Your task to perform on an android device: open device folders in google photos Image 0: 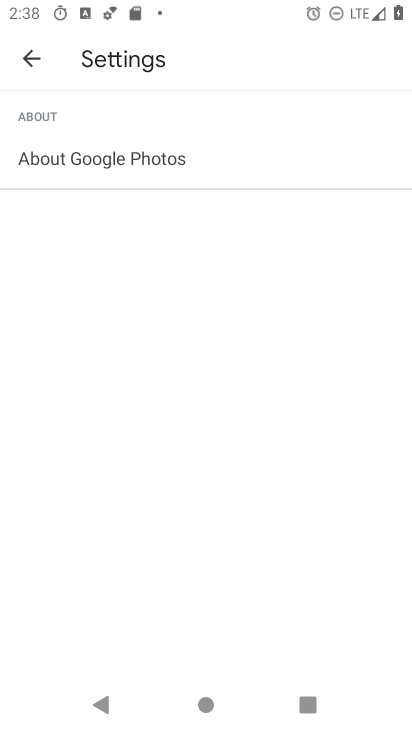
Step 0: press home button
Your task to perform on an android device: open device folders in google photos Image 1: 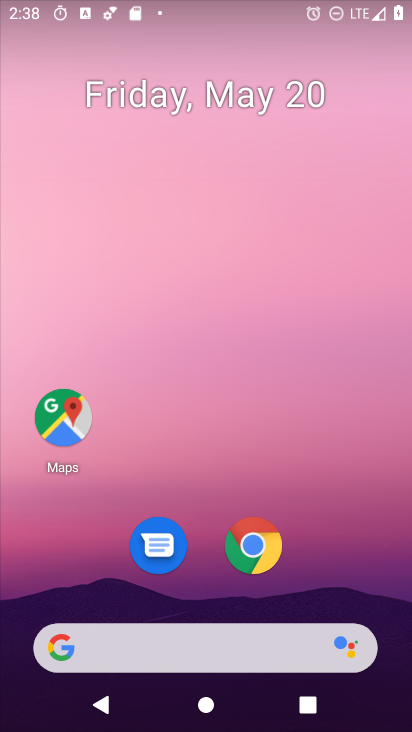
Step 1: drag from (218, 575) to (288, 25)
Your task to perform on an android device: open device folders in google photos Image 2: 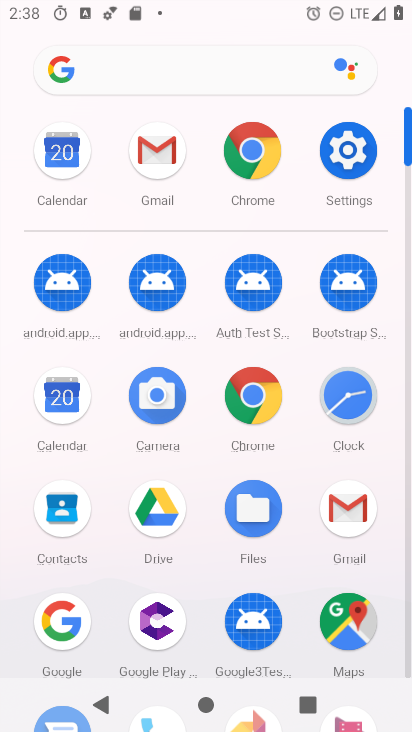
Step 2: drag from (294, 560) to (280, 145)
Your task to perform on an android device: open device folders in google photos Image 3: 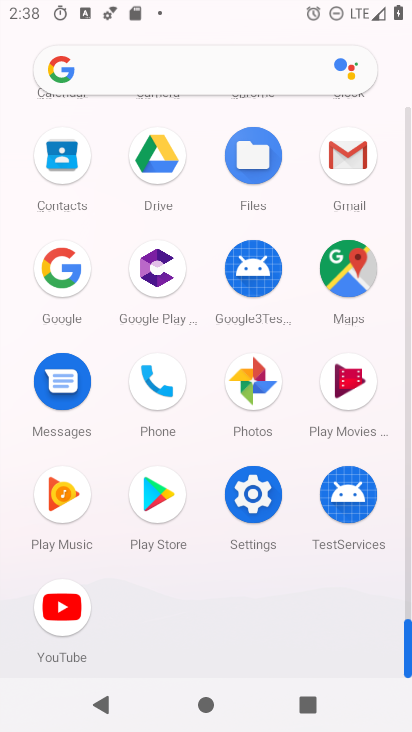
Step 3: click (157, 509)
Your task to perform on an android device: open device folders in google photos Image 4: 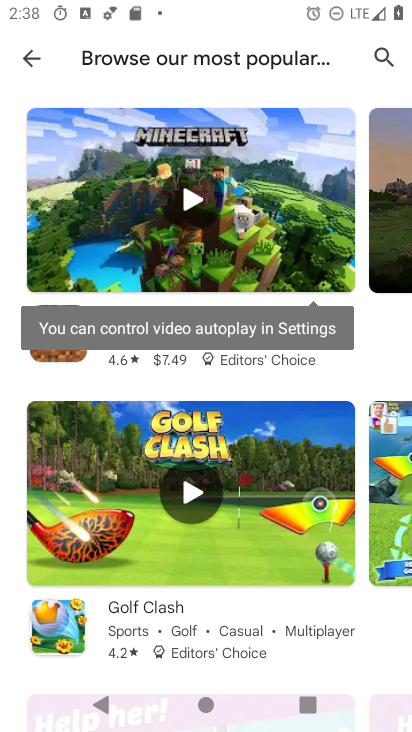
Step 4: press home button
Your task to perform on an android device: open device folders in google photos Image 5: 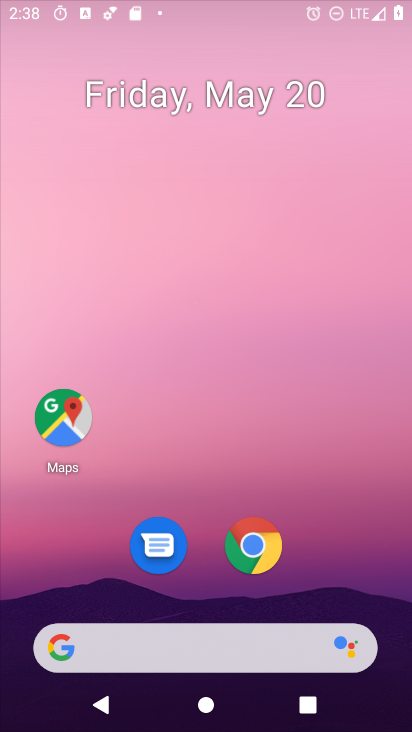
Step 5: drag from (254, 622) to (314, 156)
Your task to perform on an android device: open device folders in google photos Image 6: 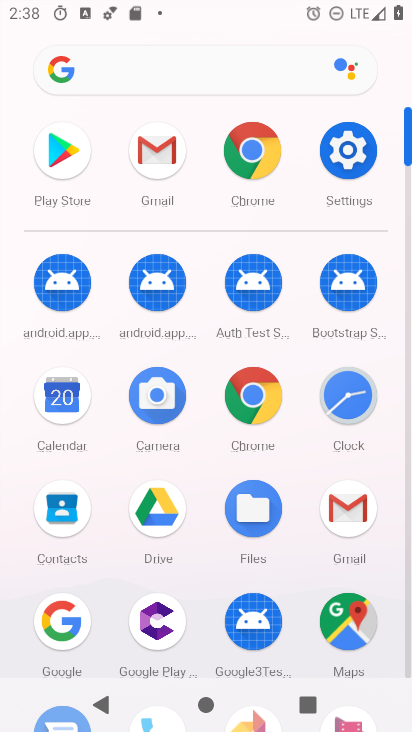
Step 6: drag from (289, 641) to (293, 387)
Your task to perform on an android device: open device folders in google photos Image 7: 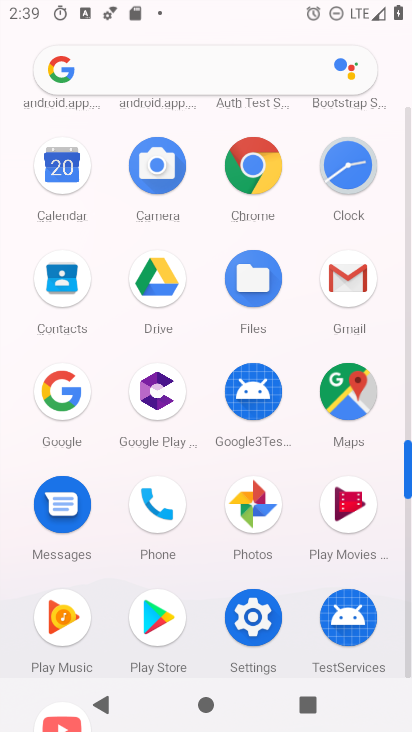
Step 7: click (262, 514)
Your task to perform on an android device: open device folders in google photos Image 8: 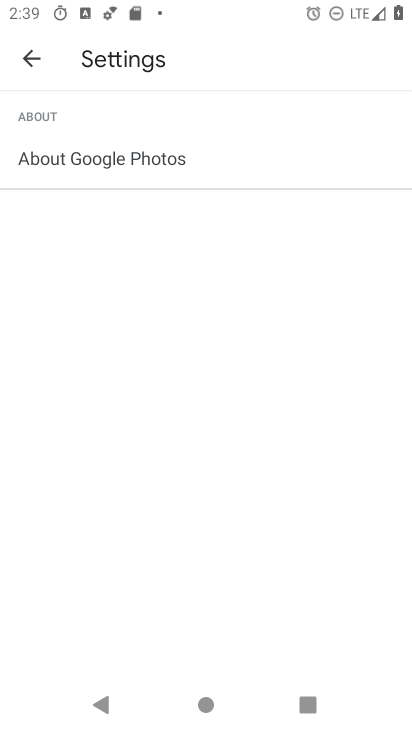
Step 8: press back button
Your task to perform on an android device: open device folders in google photos Image 9: 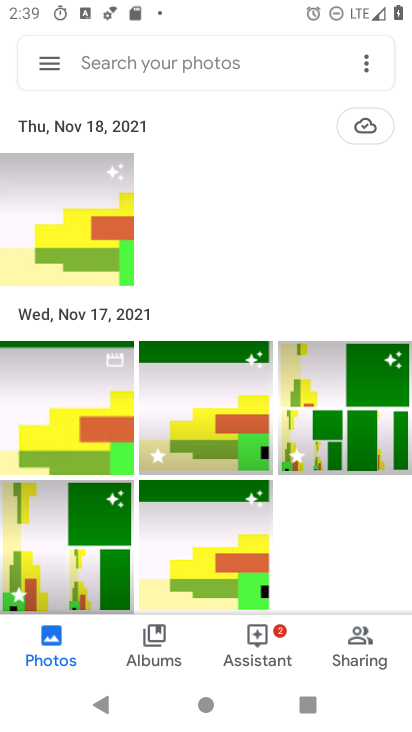
Step 9: click (55, 61)
Your task to perform on an android device: open device folders in google photos Image 10: 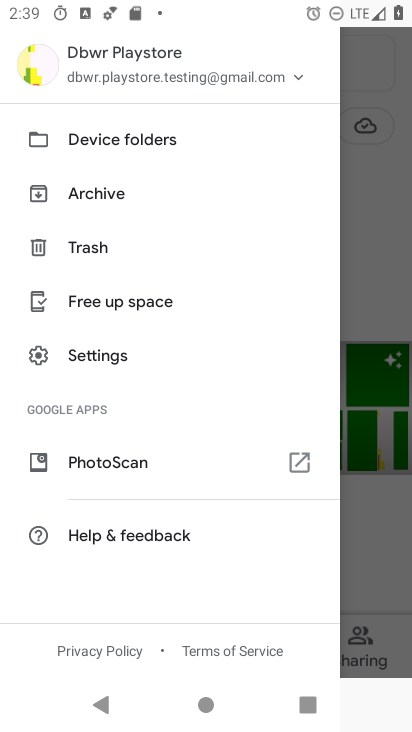
Step 10: click (123, 132)
Your task to perform on an android device: open device folders in google photos Image 11: 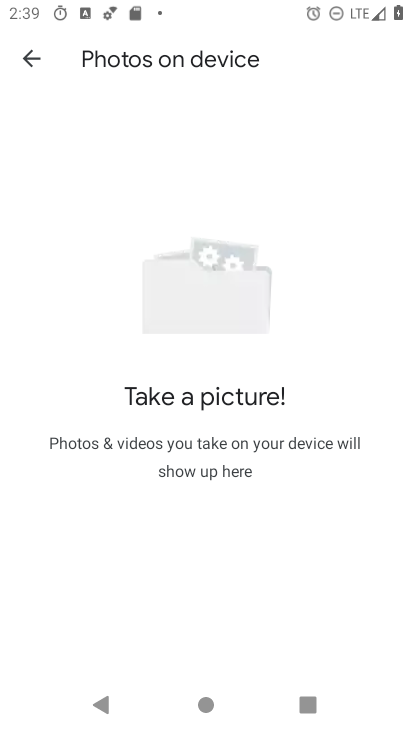
Step 11: task complete